Your task to perform on an android device: install app "Etsy: Buy & Sell Unique Items" Image 0: 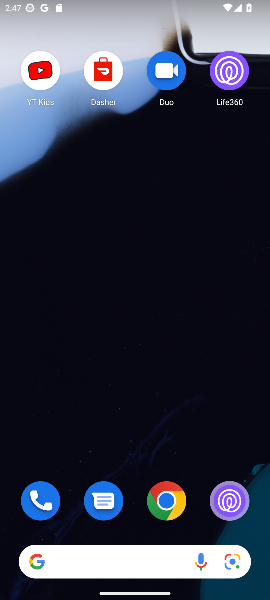
Step 0: drag from (131, 496) to (138, 3)
Your task to perform on an android device: install app "Etsy: Buy & Sell Unique Items" Image 1: 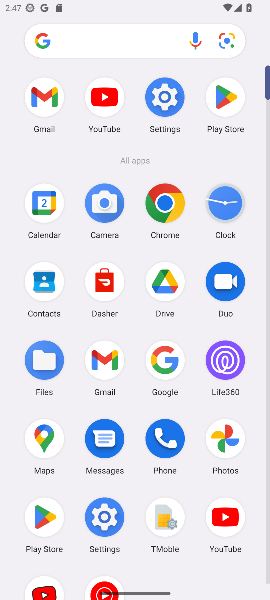
Step 1: click (227, 98)
Your task to perform on an android device: install app "Etsy: Buy & Sell Unique Items" Image 2: 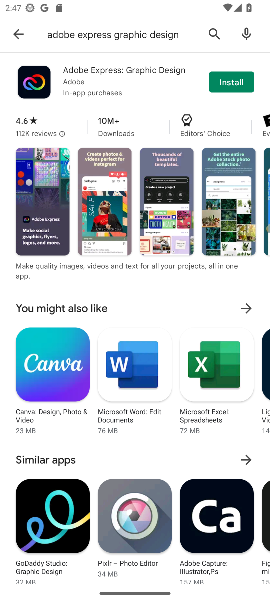
Step 2: click (203, 37)
Your task to perform on an android device: install app "Etsy: Buy & Sell Unique Items" Image 3: 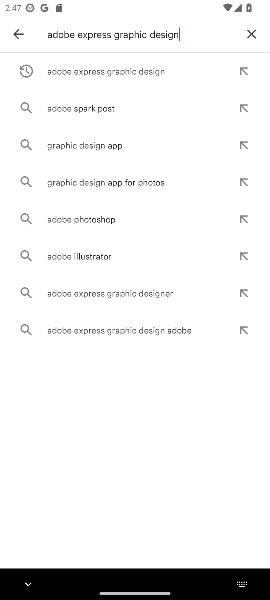
Step 3: click (255, 37)
Your task to perform on an android device: install app "Etsy: Buy & Sell Unique Items" Image 4: 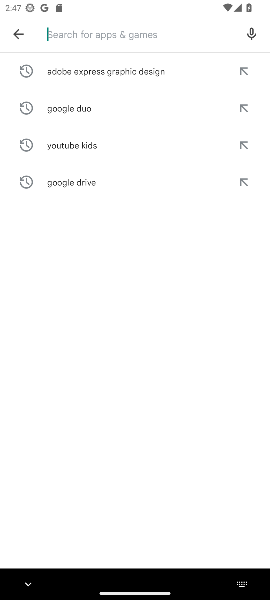
Step 4: type "Etsy: Buy & Sell Unique Items"
Your task to perform on an android device: install app "Etsy: Buy & Sell Unique Items" Image 5: 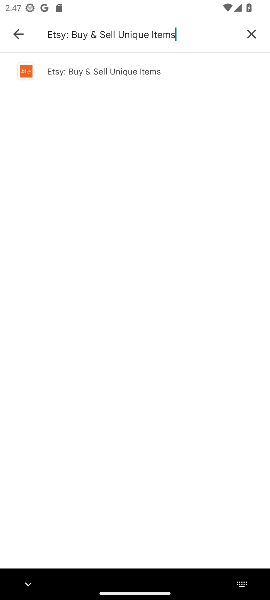
Step 5: click (101, 70)
Your task to perform on an android device: install app "Etsy: Buy & Sell Unique Items" Image 6: 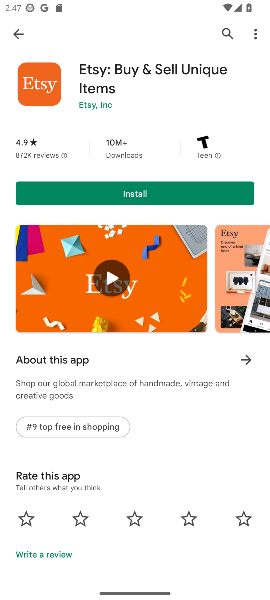
Step 6: click (121, 202)
Your task to perform on an android device: install app "Etsy: Buy & Sell Unique Items" Image 7: 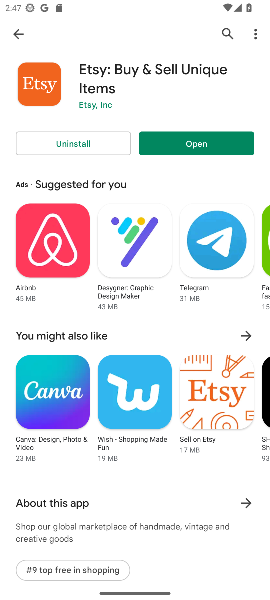
Step 7: task complete